Your task to perform on an android device: add a contact Image 0: 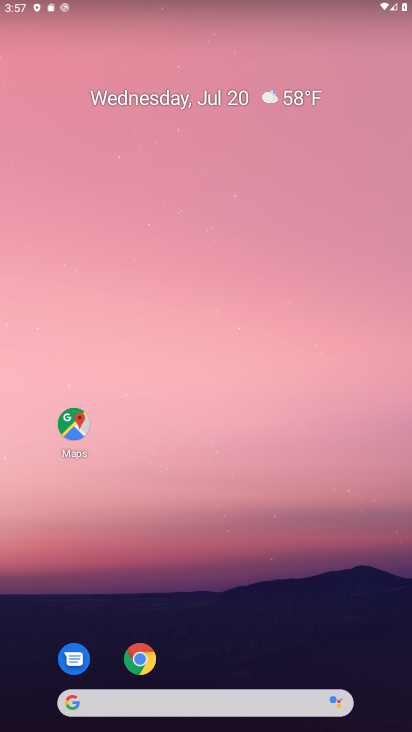
Step 0: drag from (287, 676) to (259, 185)
Your task to perform on an android device: add a contact Image 1: 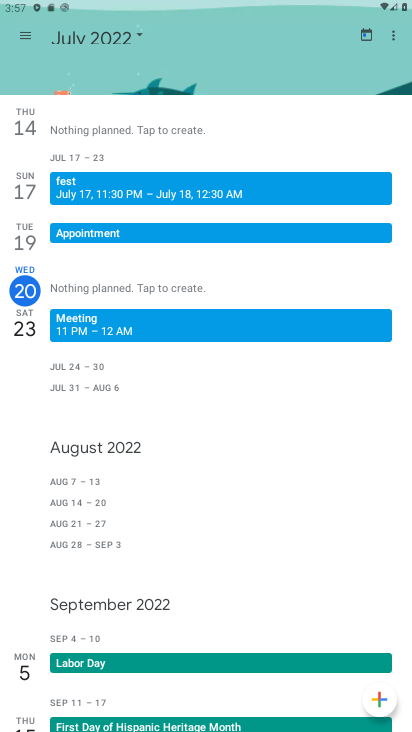
Step 1: press back button
Your task to perform on an android device: add a contact Image 2: 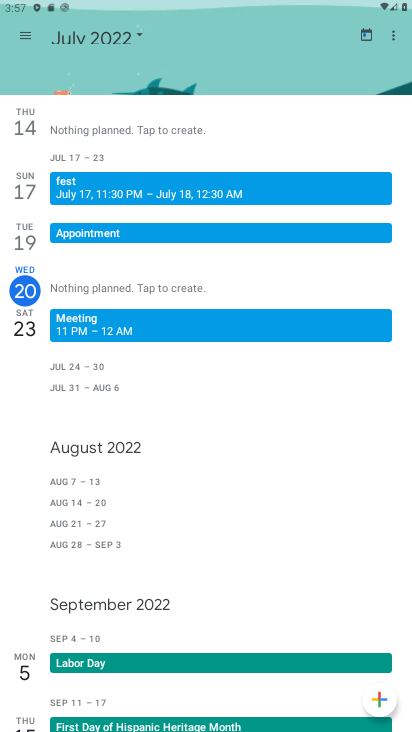
Step 2: press back button
Your task to perform on an android device: add a contact Image 3: 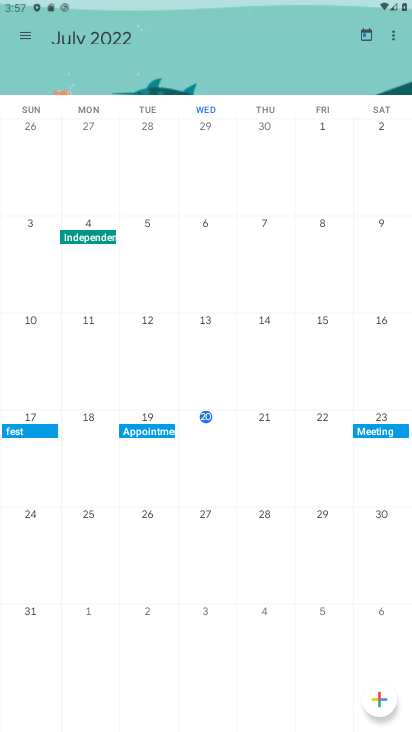
Step 3: press back button
Your task to perform on an android device: add a contact Image 4: 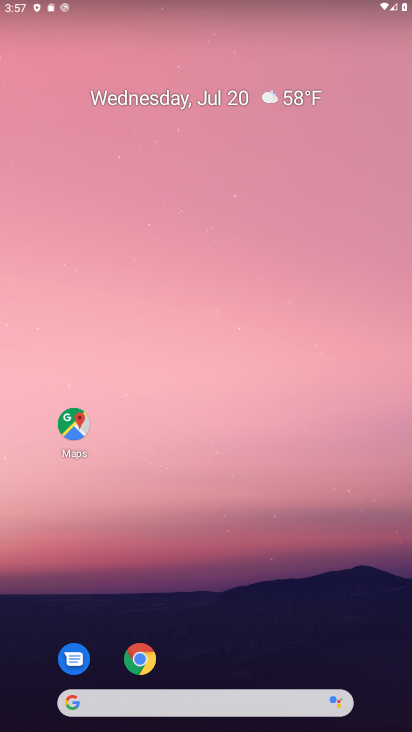
Step 4: press home button
Your task to perform on an android device: add a contact Image 5: 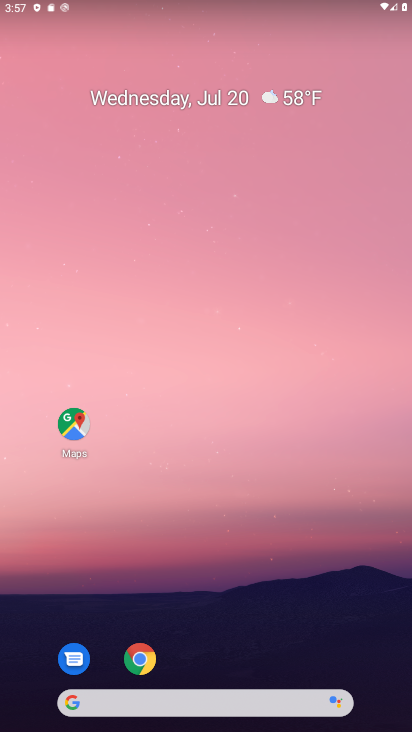
Step 5: press home button
Your task to perform on an android device: add a contact Image 6: 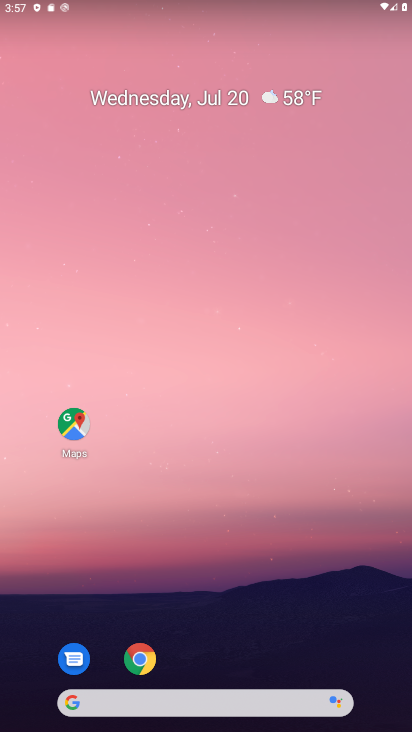
Step 6: press home button
Your task to perform on an android device: add a contact Image 7: 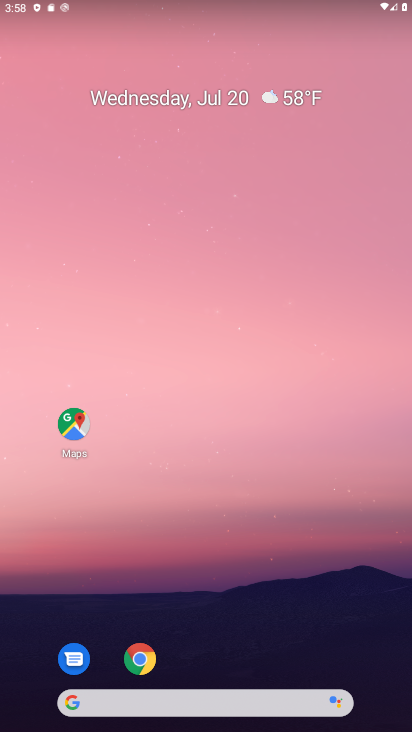
Step 7: drag from (235, 492) to (166, 48)
Your task to perform on an android device: add a contact Image 8: 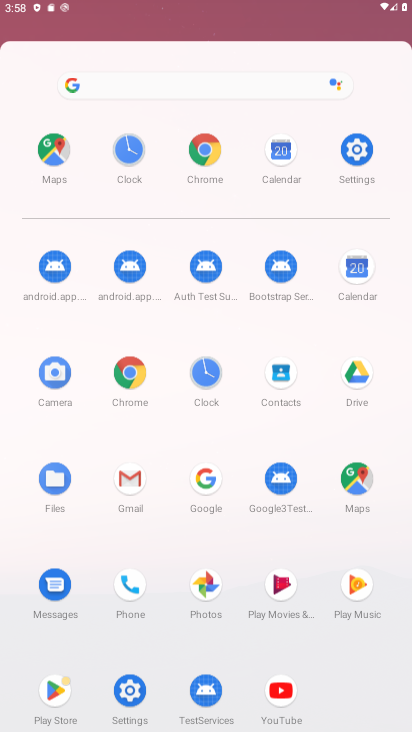
Step 8: drag from (93, 308) to (170, 353)
Your task to perform on an android device: add a contact Image 9: 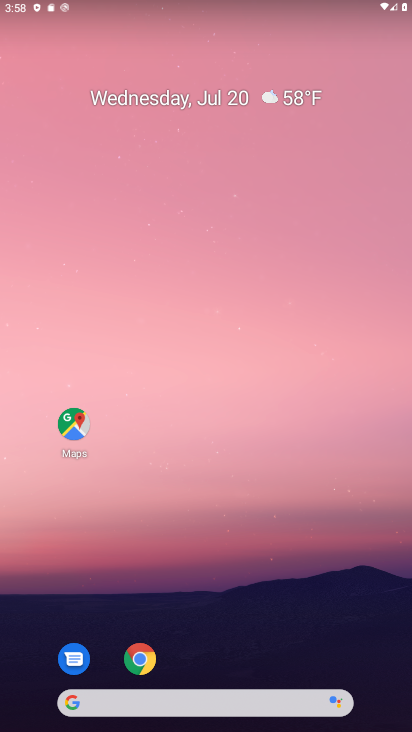
Step 9: drag from (282, 626) to (229, 133)
Your task to perform on an android device: add a contact Image 10: 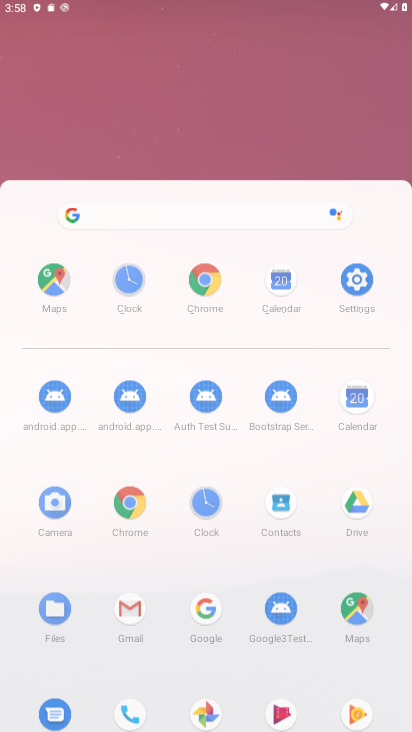
Step 10: drag from (194, 514) to (216, 220)
Your task to perform on an android device: add a contact Image 11: 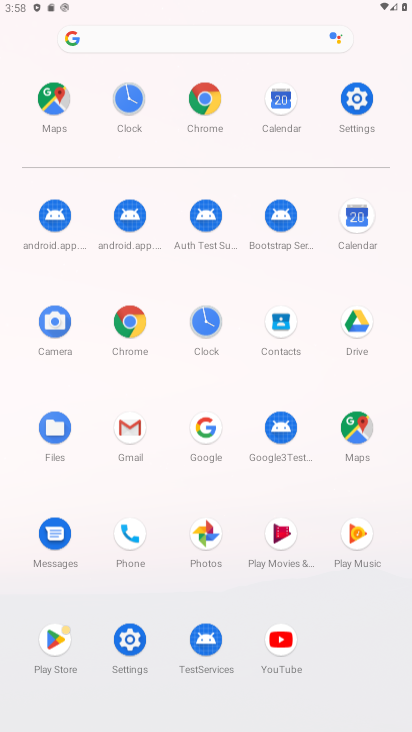
Step 11: drag from (202, 528) to (206, 211)
Your task to perform on an android device: add a contact Image 12: 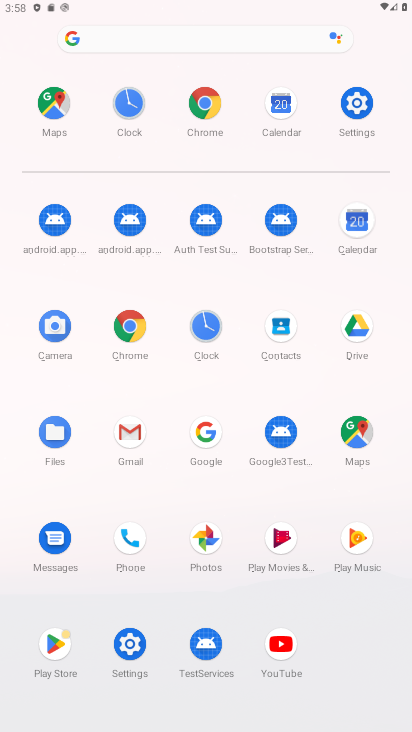
Step 12: click (291, 310)
Your task to perform on an android device: add a contact Image 13: 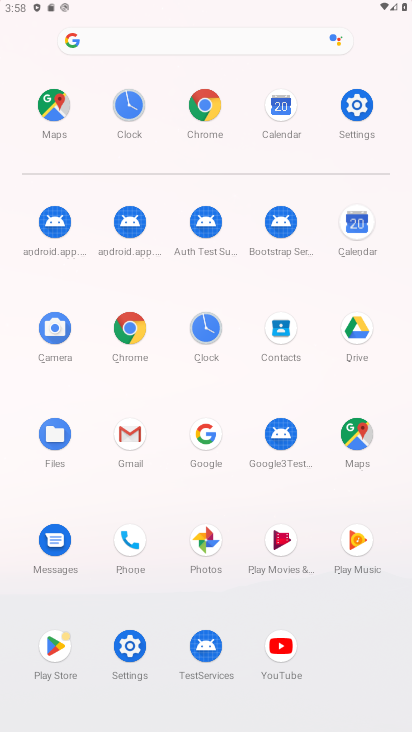
Step 13: click (286, 317)
Your task to perform on an android device: add a contact Image 14: 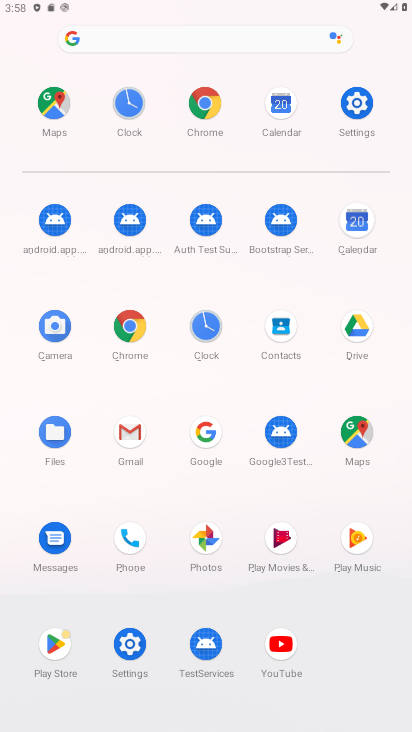
Step 14: click (282, 324)
Your task to perform on an android device: add a contact Image 15: 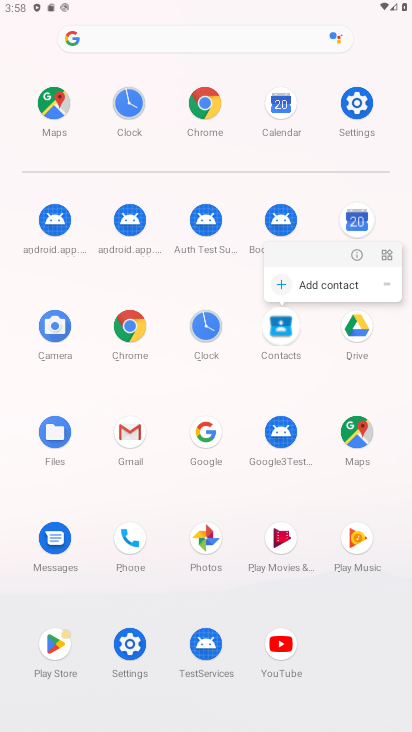
Step 15: click (282, 324)
Your task to perform on an android device: add a contact Image 16: 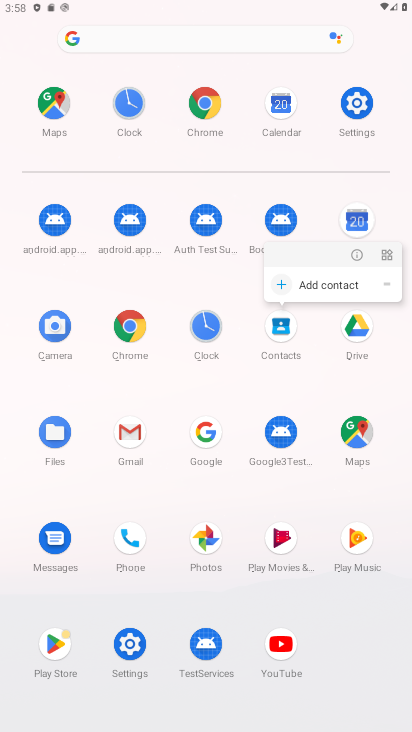
Step 16: click (282, 324)
Your task to perform on an android device: add a contact Image 17: 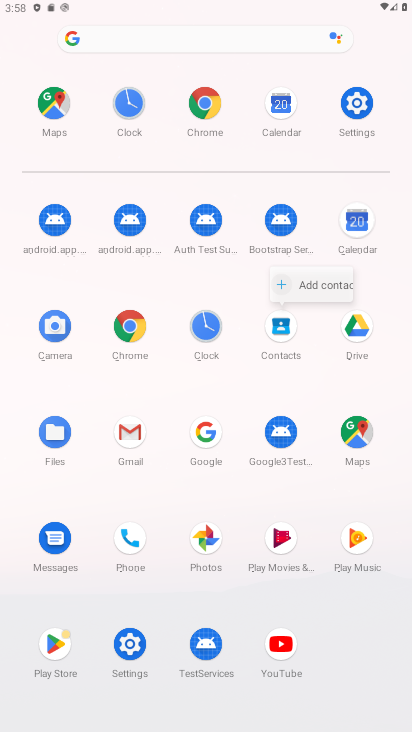
Step 17: click (281, 325)
Your task to perform on an android device: add a contact Image 18: 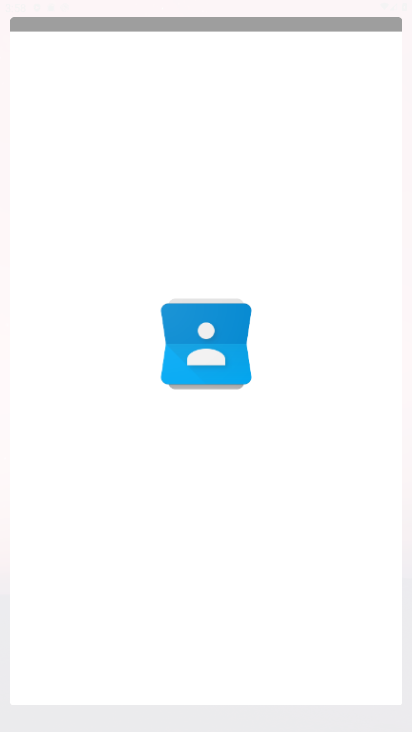
Step 18: click (276, 328)
Your task to perform on an android device: add a contact Image 19: 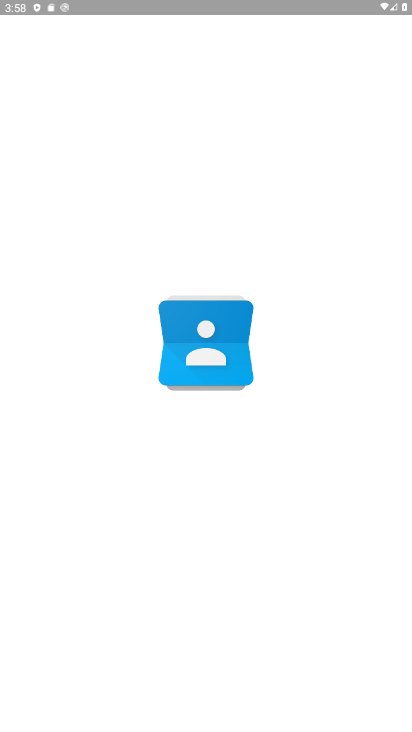
Step 19: click (276, 326)
Your task to perform on an android device: add a contact Image 20: 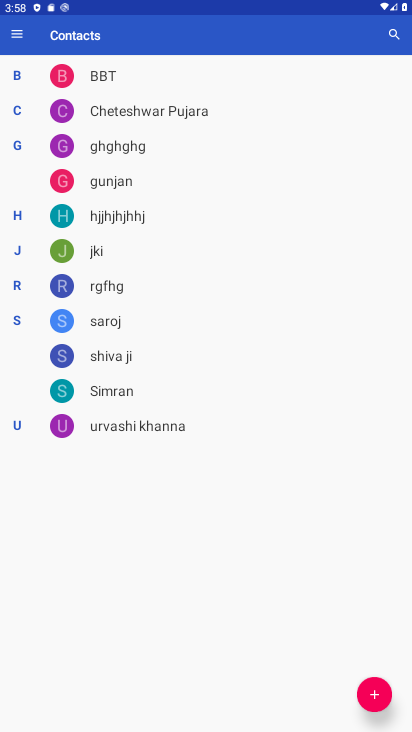
Step 20: click (361, 694)
Your task to perform on an android device: add a contact Image 21: 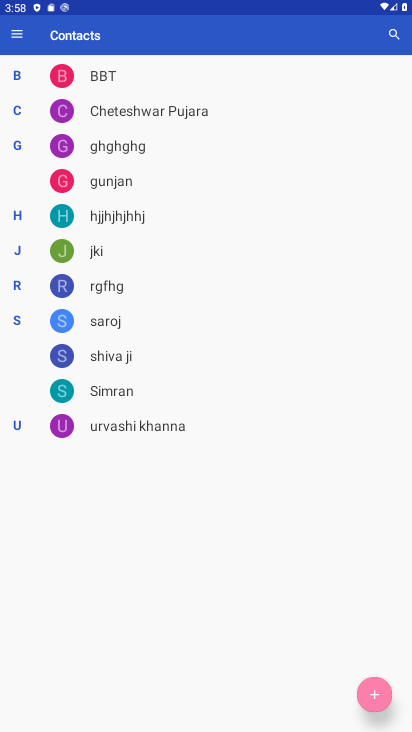
Step 21: click (376, 689)
Your task to perform on an android device: add a contact Image 22: 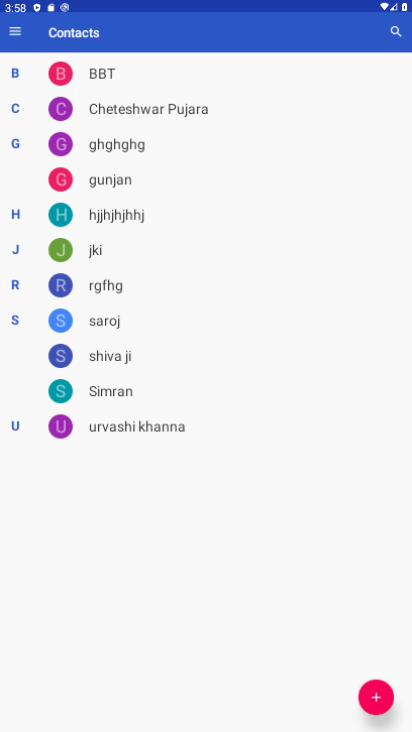
Step 22: click (376, 689)
Your task to perform on an android device: add a contact Image 23: 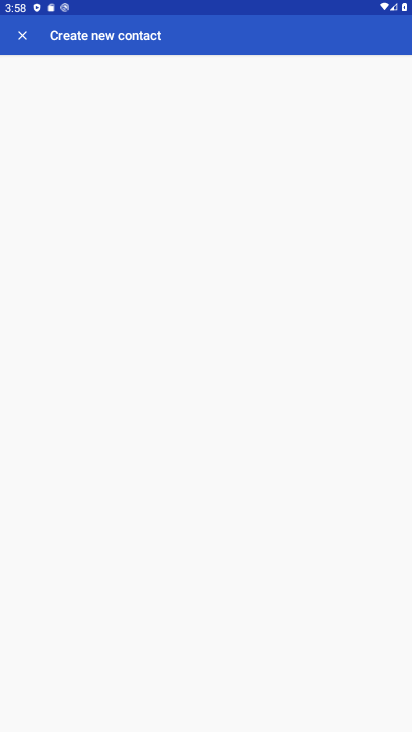
Step 23: click (376, 689)
Your task to perform on an android device: add a contact Image 24: 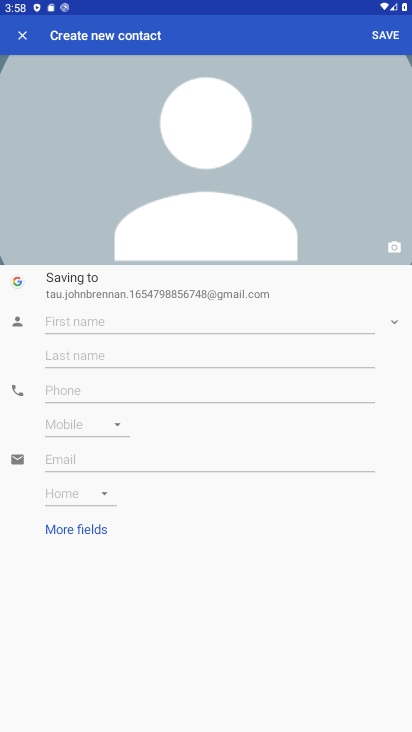
Step 24: click (376, 689)
Your task to perform on an android device: add a contact Image 25: 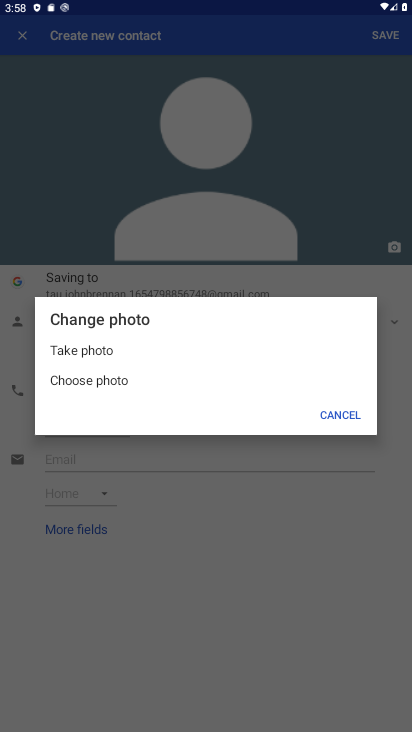
Step 25: click (356, 414)
Your task to perform on an android device: add a contact Image 26: 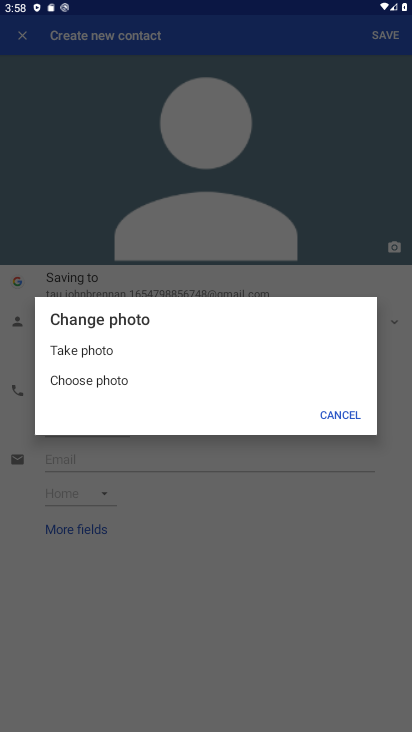
Step 26: click (355, 414)
Your task to perform on an android device: add a contact Image 27: 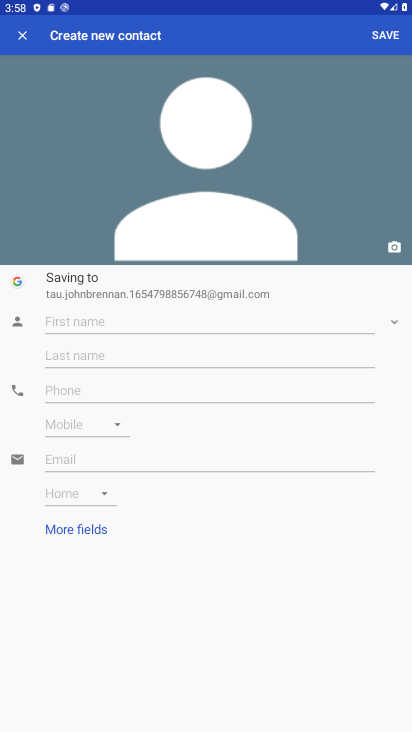
Step 27: click (46, 318)
Your task to perform on an android device: add a contact Image 28: 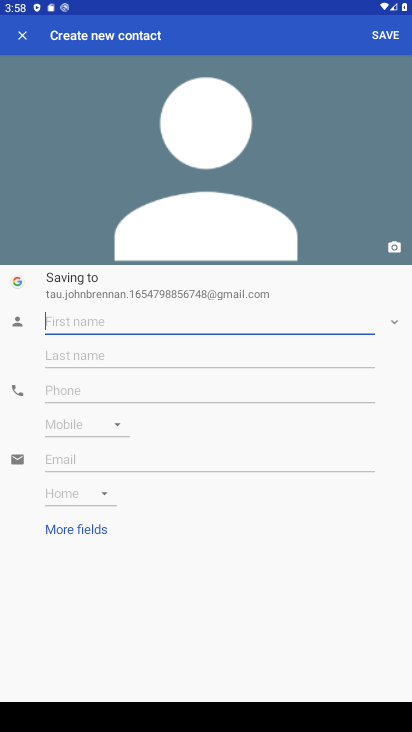
Step 28: type "dfnbkfdnndj"
Your task to perform on an android device: add a contact Image 29: 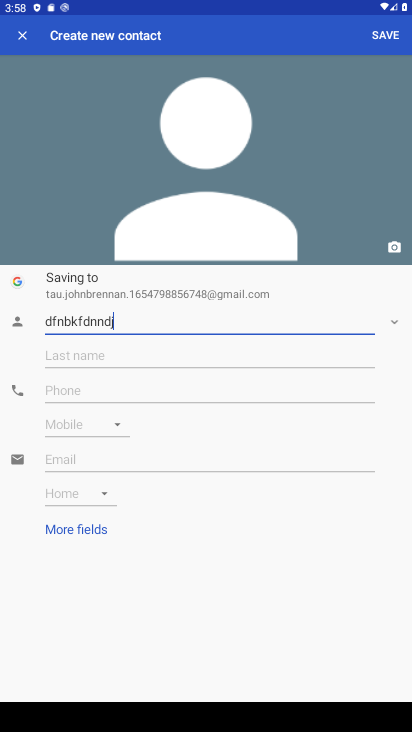
Step 29: click (61, 395)
Your task to perform on an android device: add a contact Image 30: 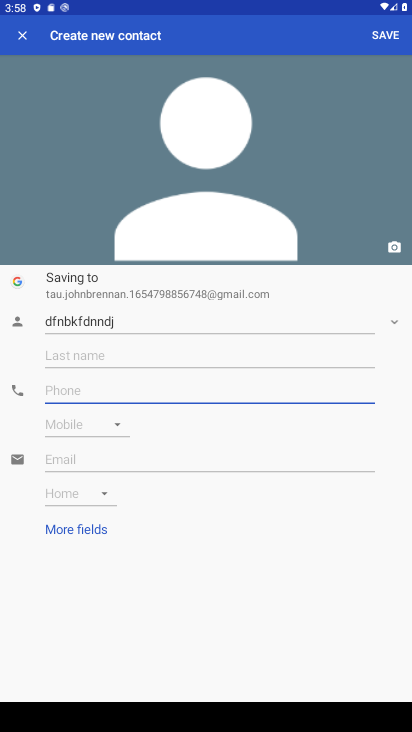
Step 30: type "874377547984892"
Your task to perform on an android device: add a contact Image 31: 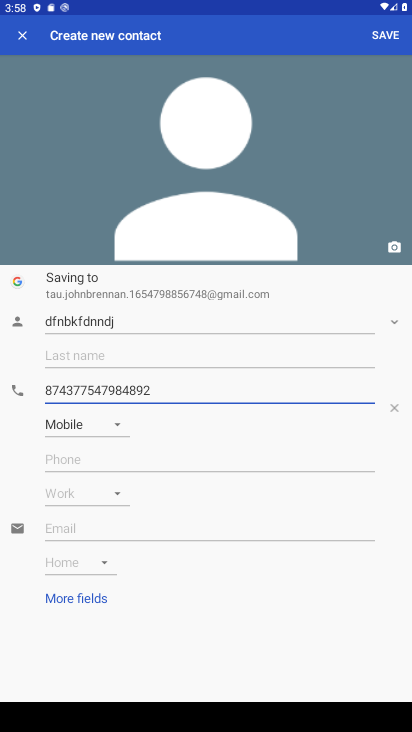
Step 31: click (396, 26)
Your task to perform on an android device: add a contact Image 32: 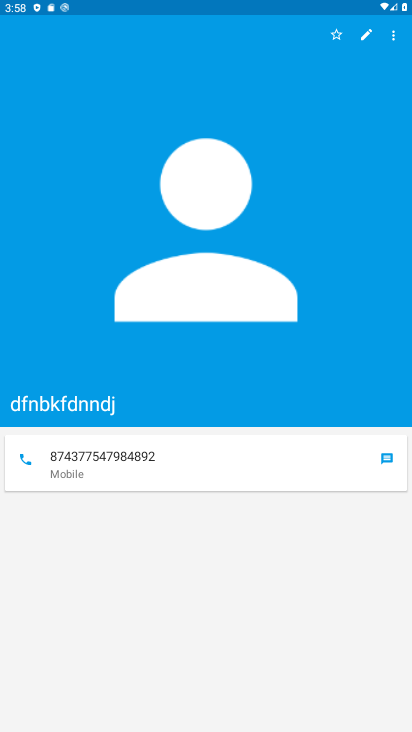
Step 32: task complete